Your task to perform on an android device: Open the web browser Image 0: 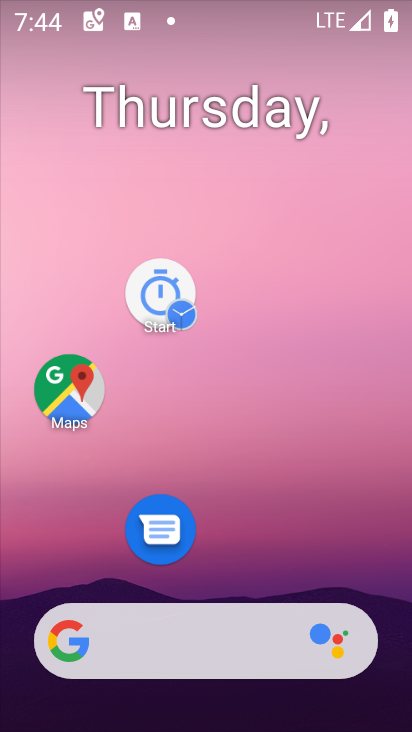
Step 0: drag from (300, 526) to (165, 132)
Your task to perform on an android device: Open the web browser Image 1: 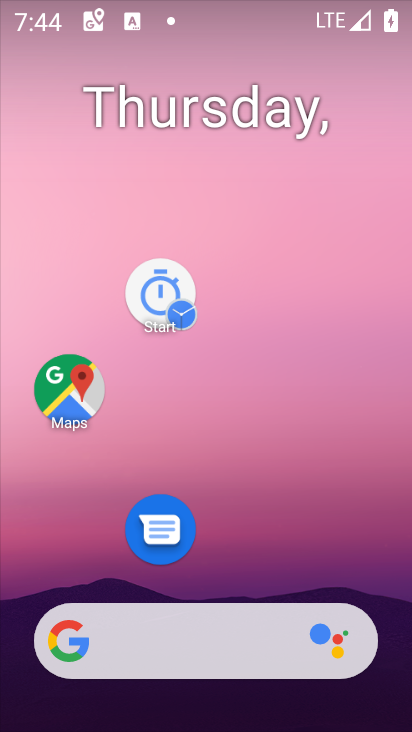
Step 1: drag from (214, 380) to (107, 161)
Your task to perform on an android device: Open the web browser Image 2: 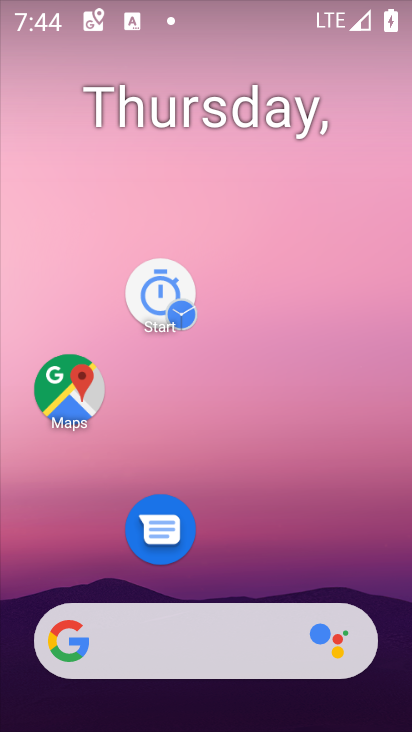
Step 2: drag from (344, 535) to (216, 126)
Your task to perform on an android device: Open the web browser Image 3: 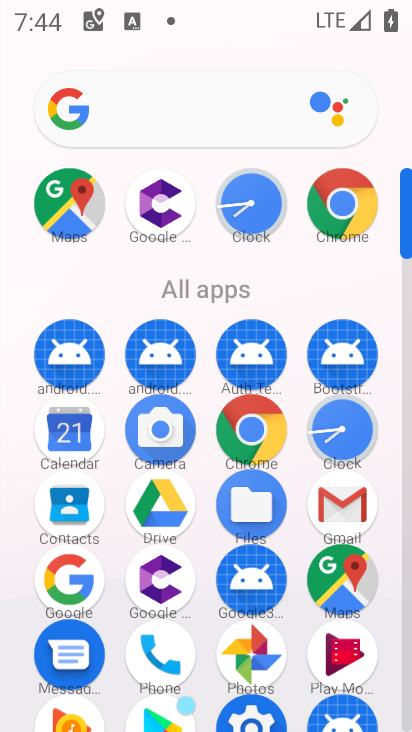
Step 3: click (360, 220)
Your task to perform on an android device: Open the web browser Image 4: 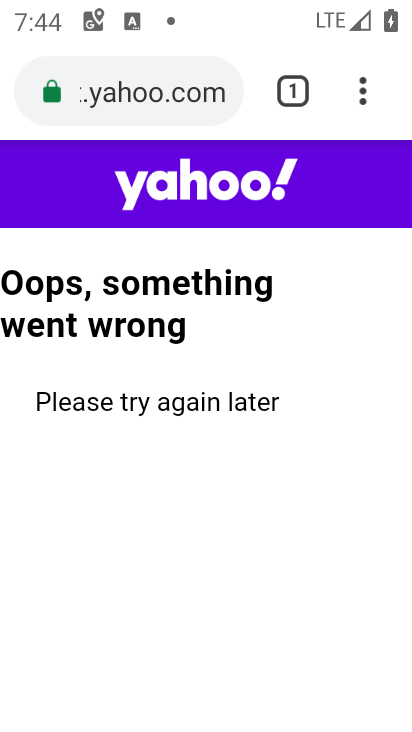
Step 4: task complete